Your task to perform on an android device: Go to Yahoo.com Image 0: 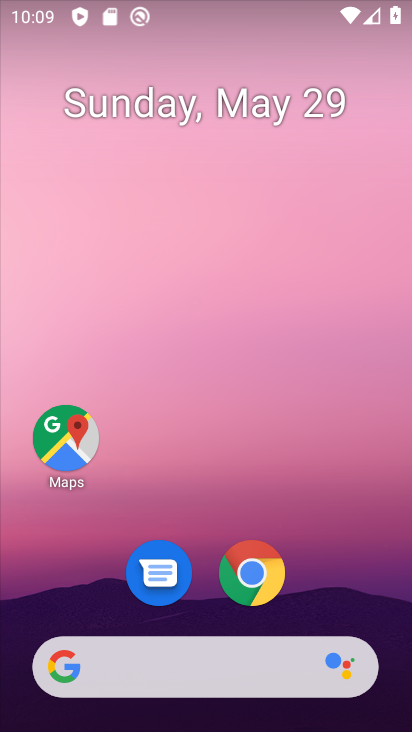
Step 0: click (274, 582)
Your task to perform on an android device: Go to Yahoo.com Image 1: 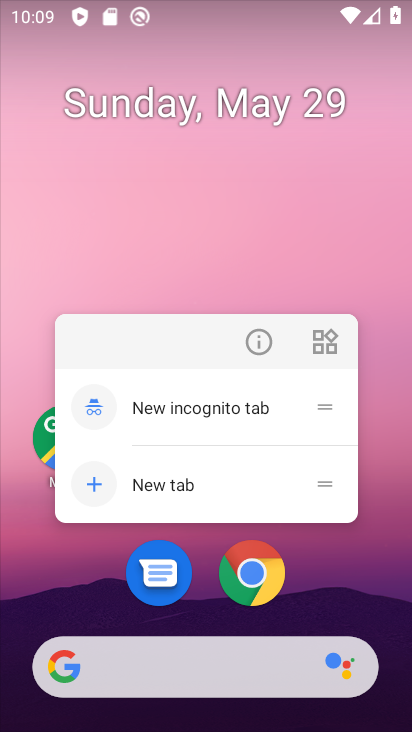
Step 1: click (274, 579)
Your task to perform on an android device: Go to Yahoo.com Image 2: 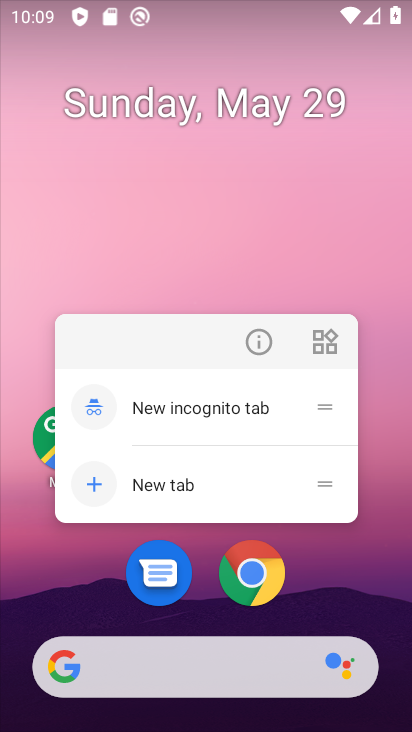
Step 2: click (250, 578)
Your task to perform on an android device: Go to Yahoo.com Image 3: 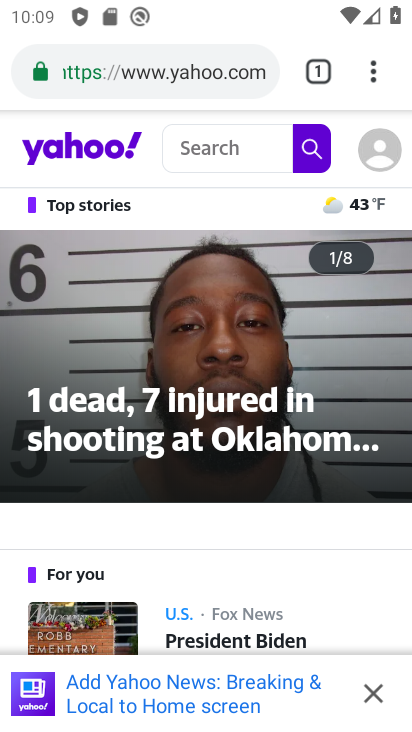
Step 3: task complete